Your task to perform on an android device: empty trash in google photos Image 0: 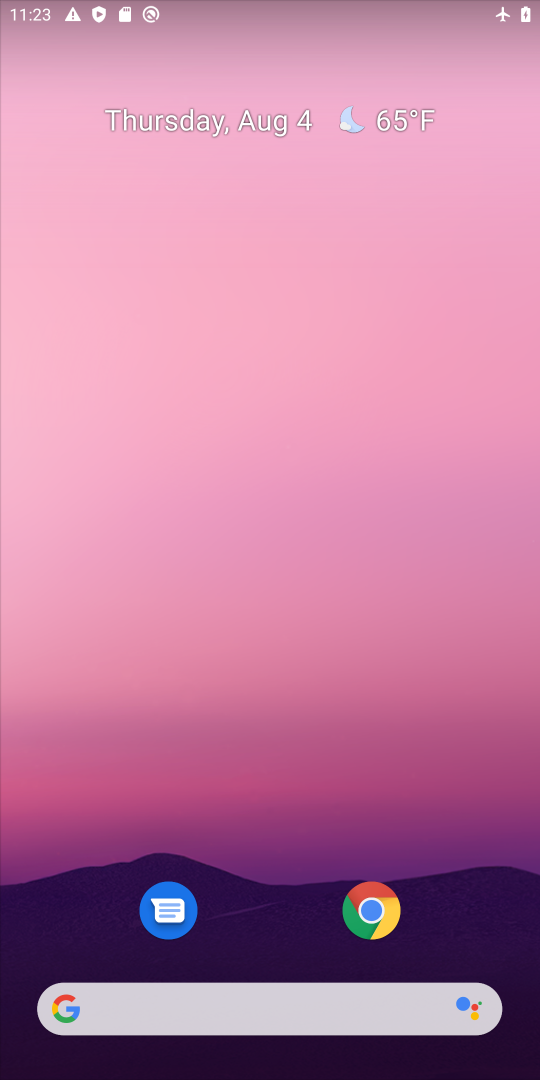
Step 0: drag from (284, 949) to (284, 448)
Your task to perform on an android device: empty trash in google photos Image 1: 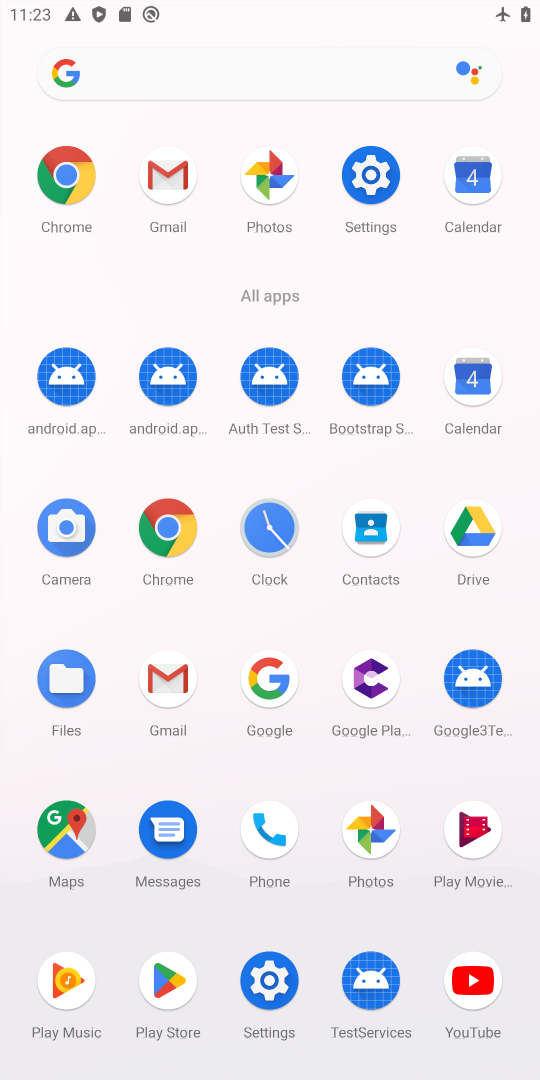
Step 1: click (365, 835)
Your task to perform on an android device: empty trash in google photos Image 2: 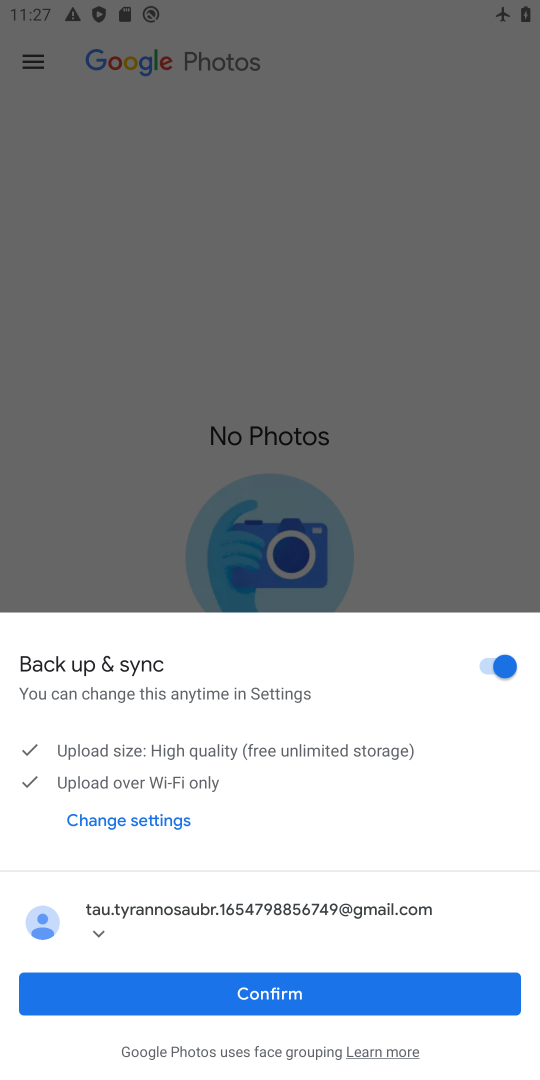
Step 2: task complete